Your task to perform on an android device: Open Amazon Image 0: 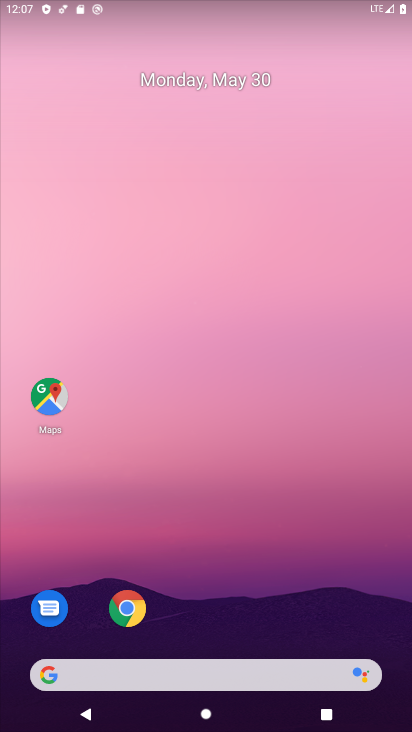
Step 0: click (143, 611)
Your task to perform on an android device: Open Amazon Image 1: 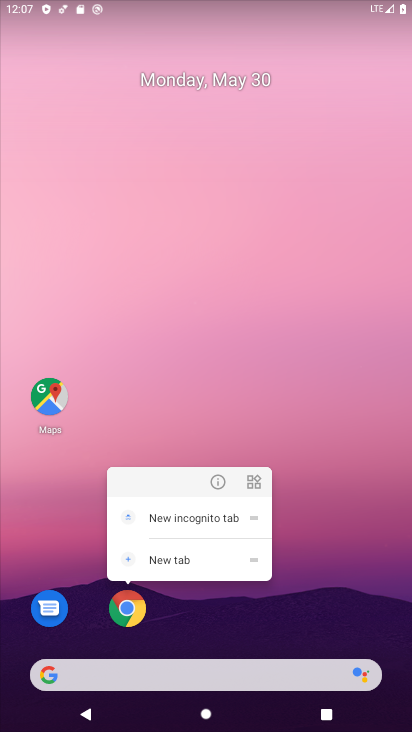
Step 1: click (134, 605)
Your task to perform on an android device: Open Amazon Image 2: 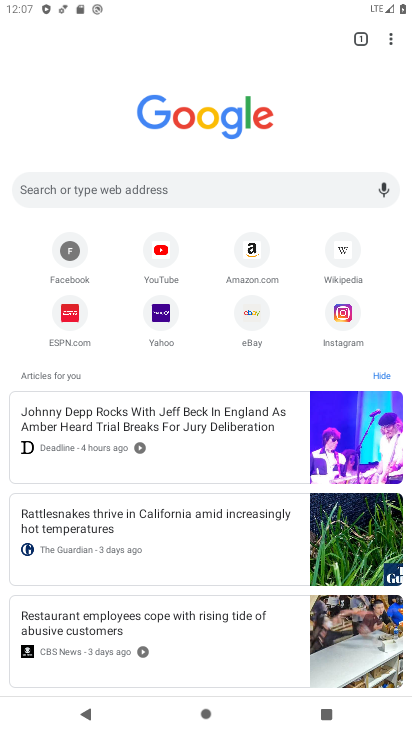
Step 2: click (255, 263)
Your task to perform on an android device: Open Amazon Image 3: 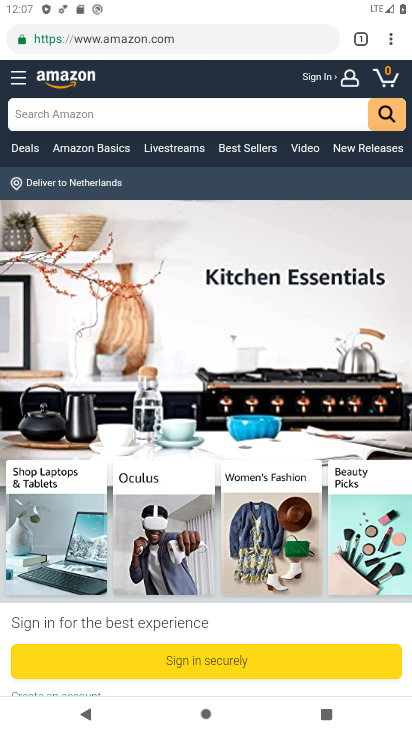
Step 3: task complete